Your task to perform on an android device: toggle notification dots Image 0: 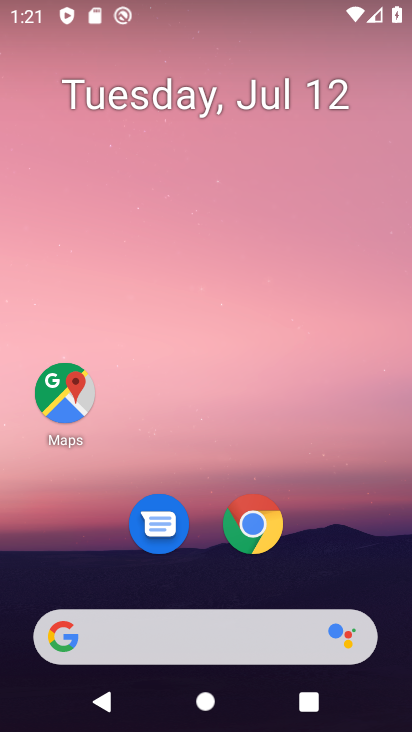
Step 0: drag from (251, 424) to (253, 23)
Your task to perform on an android device: toggle notification dots Image 1: 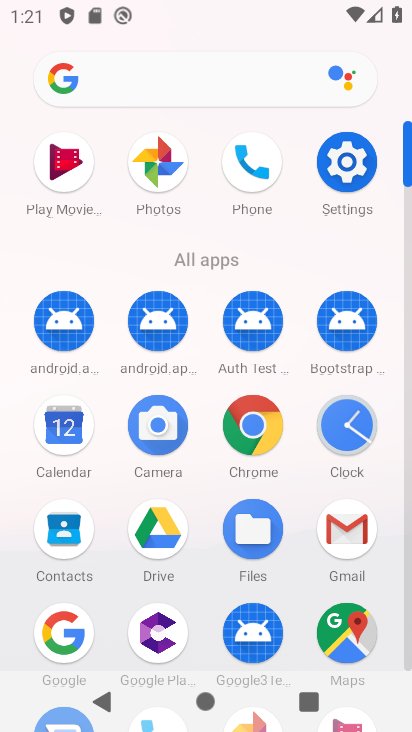
Step 1: click (346, 173)
Your task to perform on an android device: toggle notification dots Image 2: 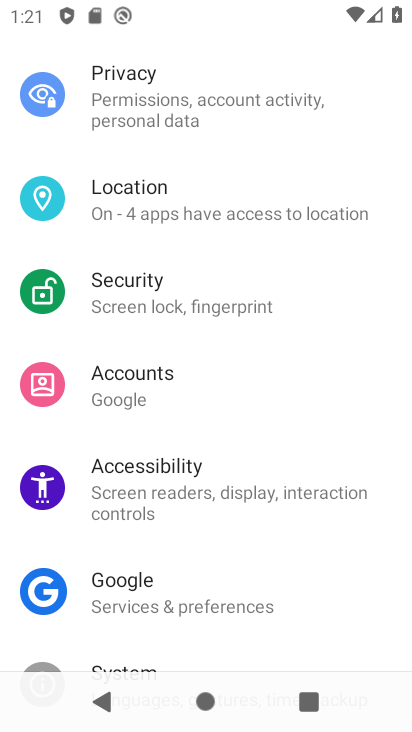
Step 2: drag from (232, 167) to (217, 576)
Your task to perform on an android device: toggle notification dots Image 3: 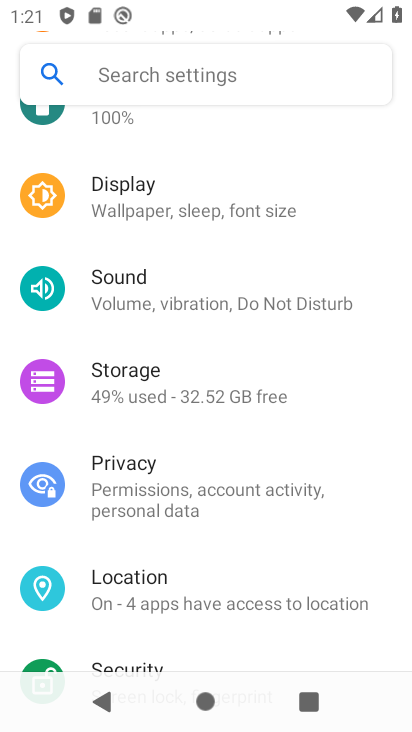
Step 3: drag from (217, 173) to (243, 594)
Your task to perform on an android device: toggle notification dots Image 4: 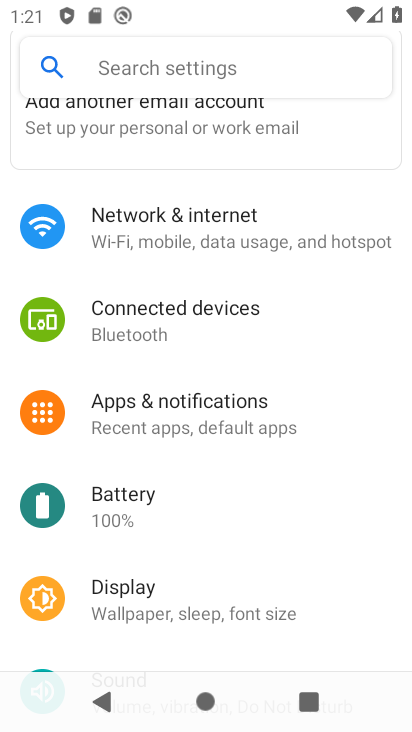
Step 4: click (210, 412)
Your task to perform on an android device: toggle notification dots Image 5: 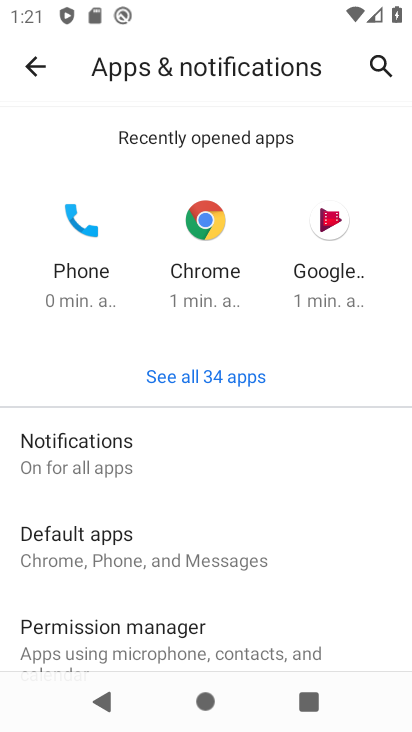
Step 5: click (117, 449)
Your task to perform on an android device: toggle notification dots Image 6: 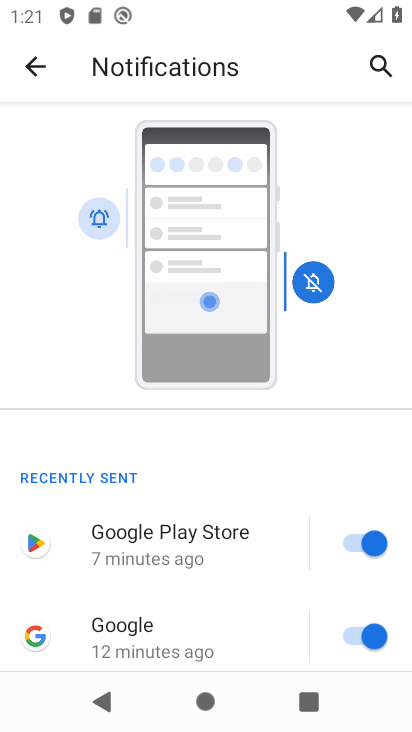
Step 6: drag from (266, 491) to (333, 123)
Your task to perform on an android device: toggle notification dots Image 7: 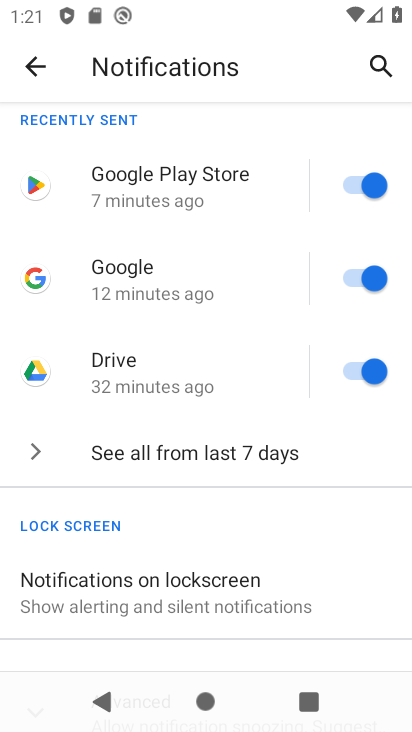
Step 7: drag from (179, 492) to (186, 308)
Your task to perform on an android device: toggle notification dots Image 8: 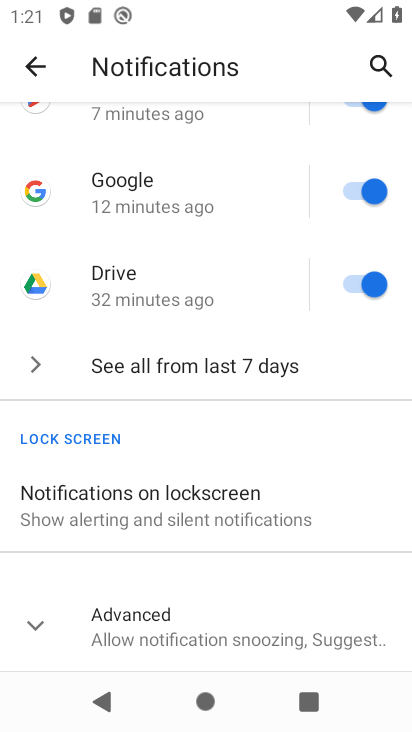
Step 8: click (32, 628)
Your task to perform on an android device: toggle notification dots Image 9: 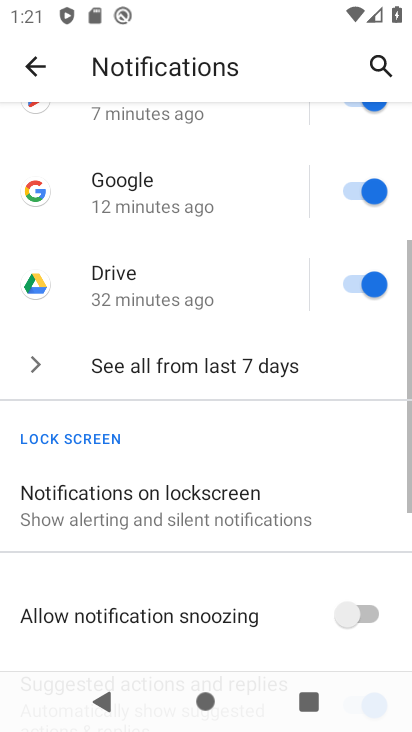
Step 9: drag from (277, 503) to (312, 159)
Your task to perform on an android device: toggle notification dots Image 10: 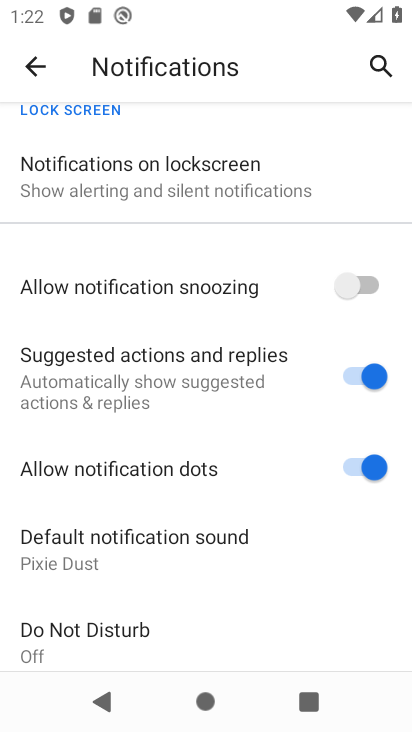
Step 10: click (361, 458)
Your task to perform on an android device: toggle notification dots Image 11: 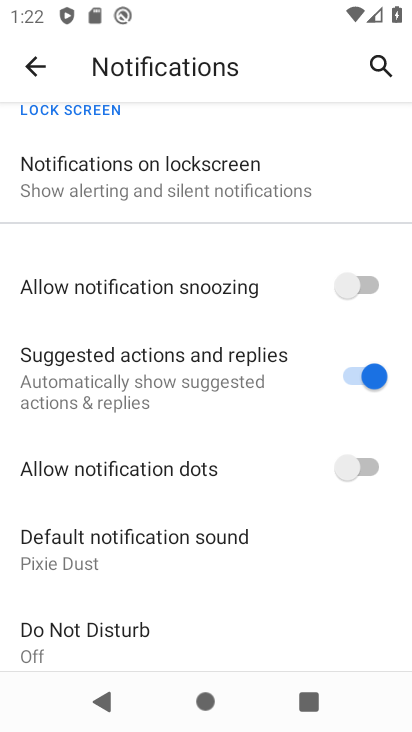
Step 11: task complete